Your task to perform on an android device: empty trash in the gmail app Image 0: 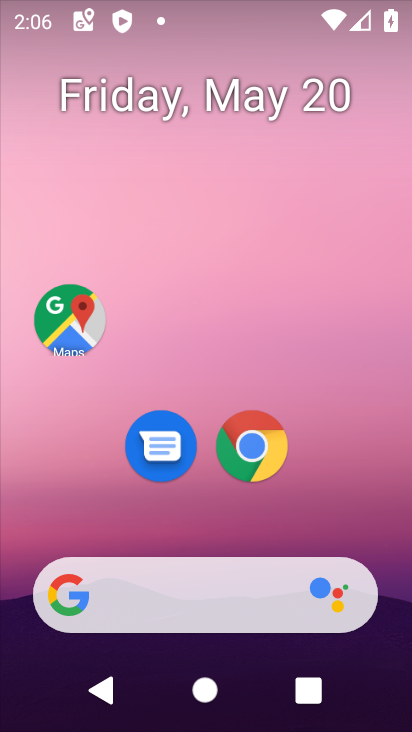
Step 0: drag from (392, 557) to (396, 0)
Your task to perform on an android device: empty trash in the gmail app Image 1: 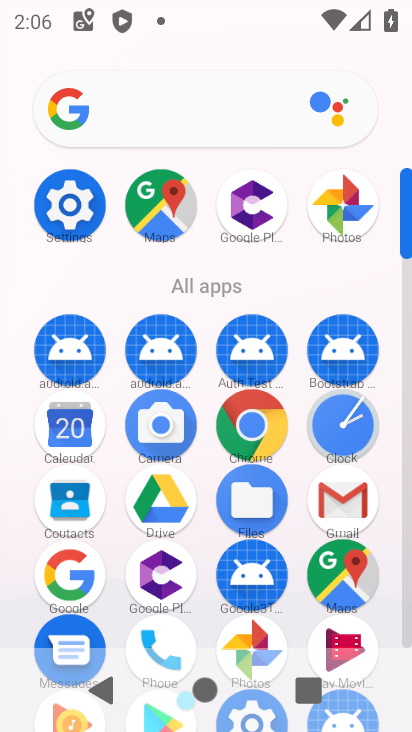
Step 1: click (353, 504)
Your task to perform on an android device: empty trash in the gmail app Image 2: 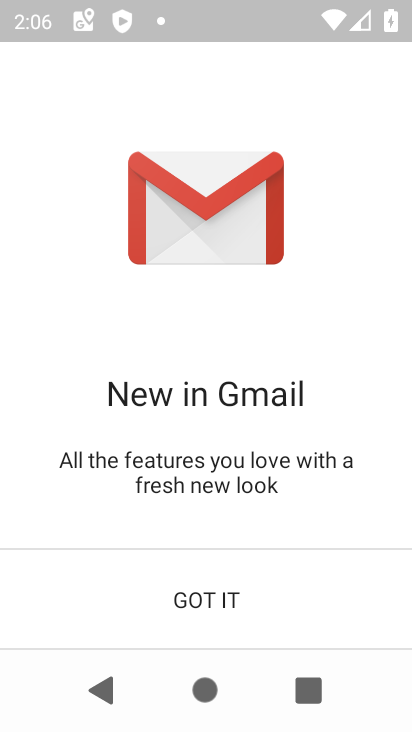
Step 2: click (200, 602)
Your task to perform on an android device: empty trash in the gmail app Image 3: 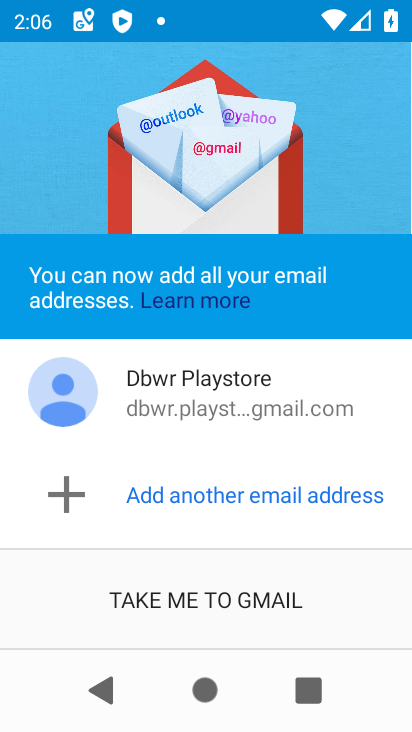
Step 3: click (200, 602)
Your task to perform on an android device: empty trash in the gmail app Image 4: 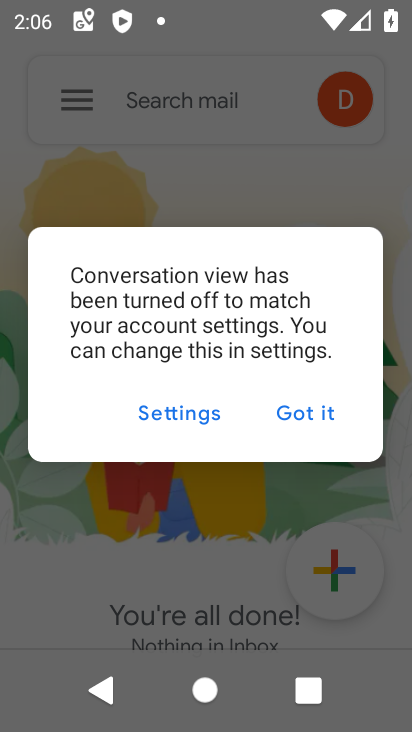
Step 4: click (296, 418)
Your task to perform on an android device: empty trash in the gmail app Image 5: 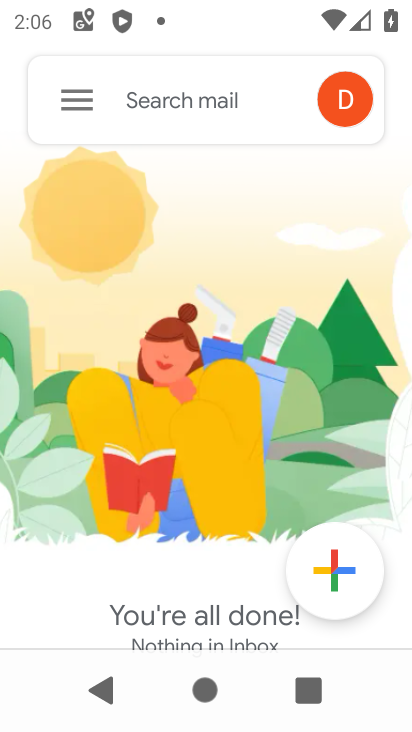
Step 5: click (73, 108)
Your task to perform on an android device: empty trash in the gmail app Image 6: 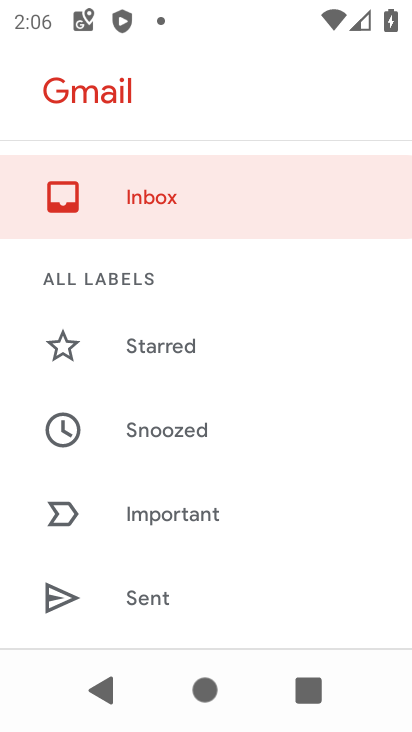
Step 6: drag from (259, 561) to (237, 130)
Your task to perform on an android device: empty trash in the gmail app Image 7: 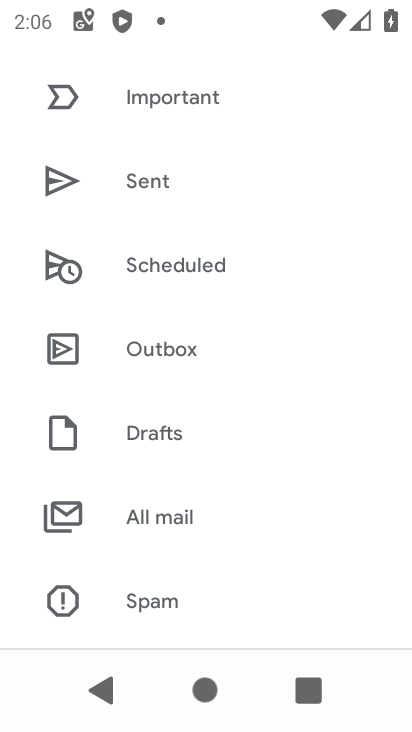
Step 7: drag from (259, 518) to (242, 186)
Your task to perform on an android device: empty trash in the gmail app Image 8: 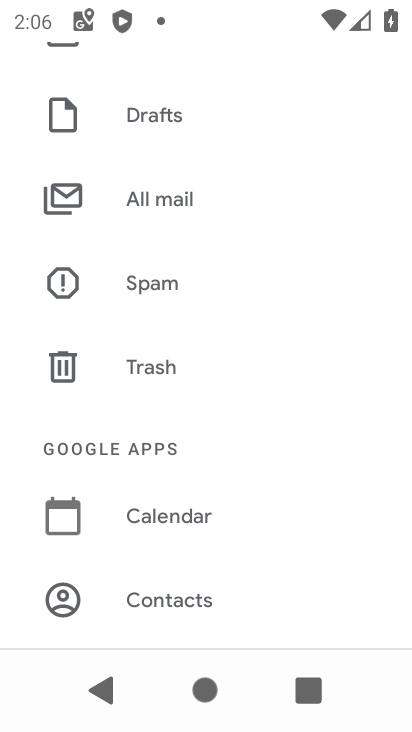
Step 8: click (149, 366)
Your task to perform on an android device: empty trash in the gmail app Image 9: 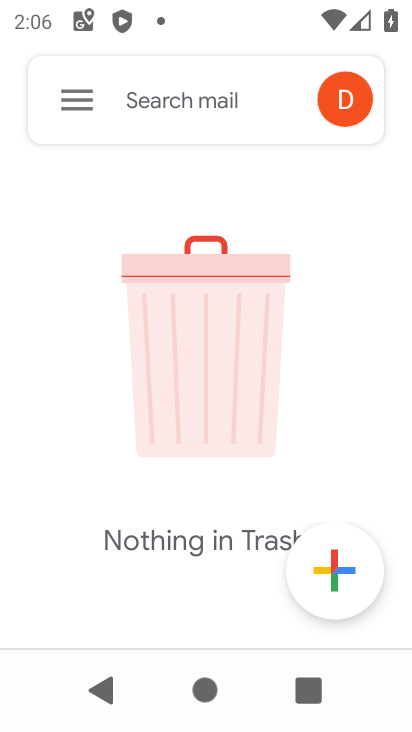
Step 9: task complete